Your task to perform on an android device: What's on my calendar today? Image 0: 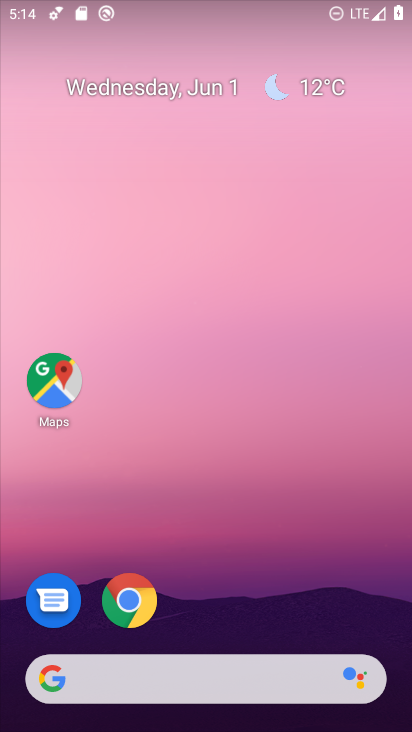
Step 0: drag from (383, 636) to (265, 28)
Your task to perform on an android device: What's on my calendar today? Image 1: 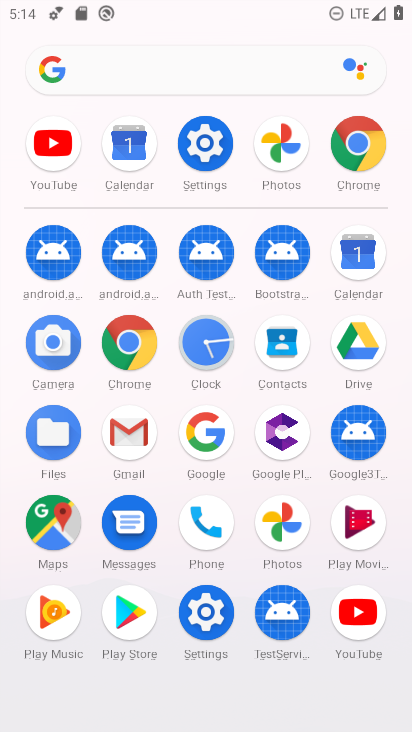
Step 1: click (358, 250)
Your task to perform on an android device: What's on my calendar today? Image 2: 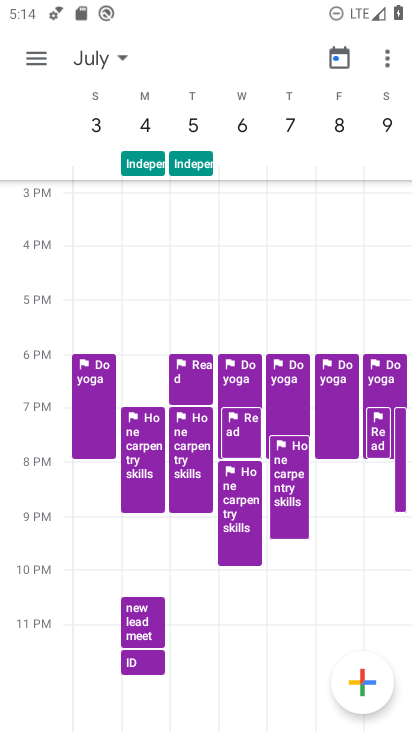
Step 2: click (34, 52)
Your task to perform on an android device: What's on my calendar today? Image 3: 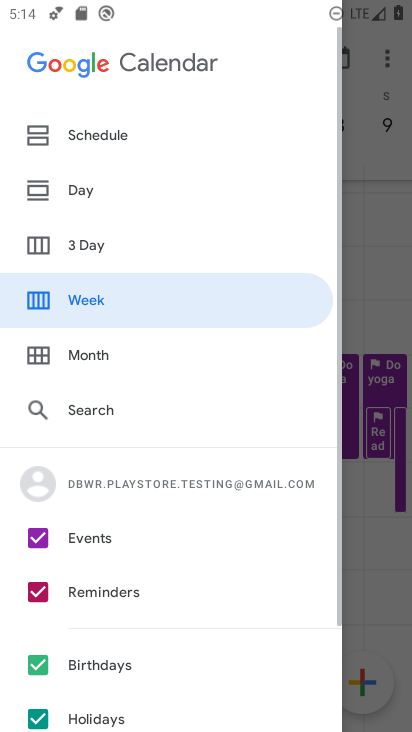
Step 3: click (72, 189)
Your task to perform on an android device: What's on my calendar today? Image 4: 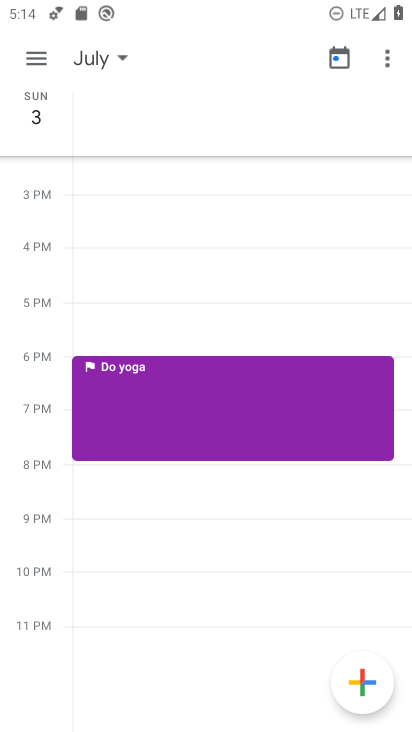
Step 4: click (124, 61)
Your task to perform on an android device: What's on my calendar today? Image 5: 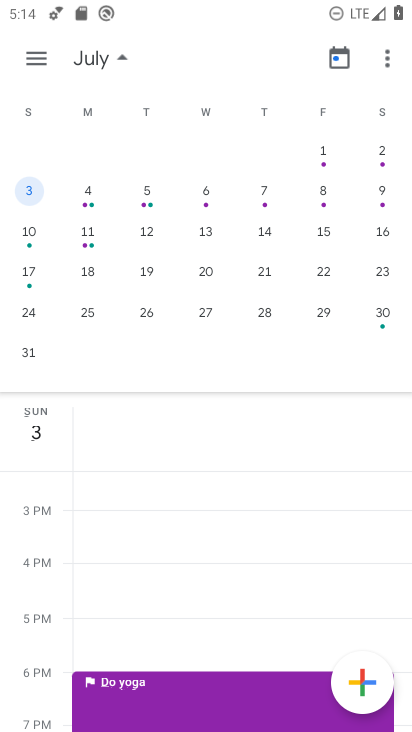
Step 5: drag from (66, 237) to (387, 241)
Your task to perform on an android device: What's on my calendar today? Image 6: 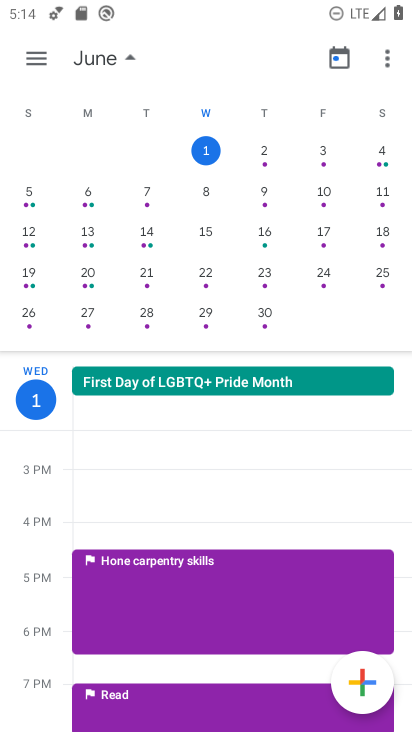
Step 6: click (209, 151)
Your task to perform on an android device: What's on my calendar today? Image 7: 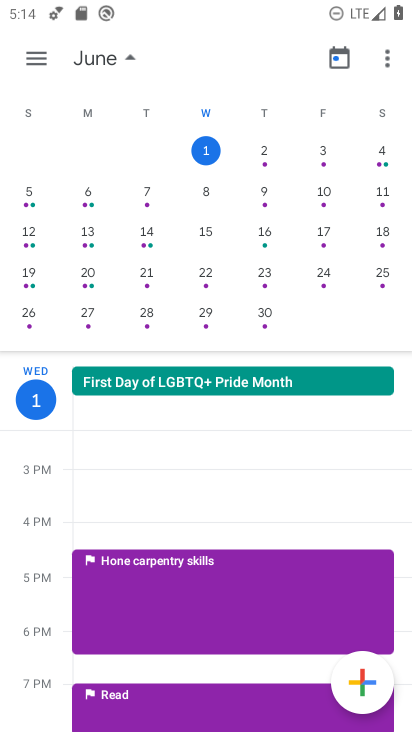
Step 7: task complete